Your task to perform on an android device: change the clock display to digital Image 0: 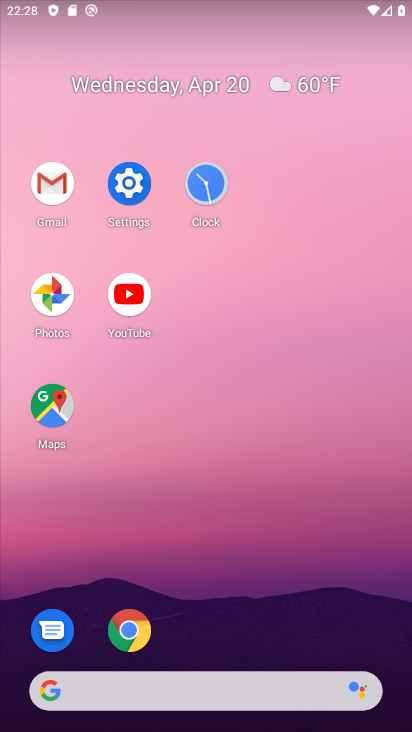
Step 0: drag from (239, 663) to (237, 131)
Your task to perform on an android device: change the clock display to digital Image 1: 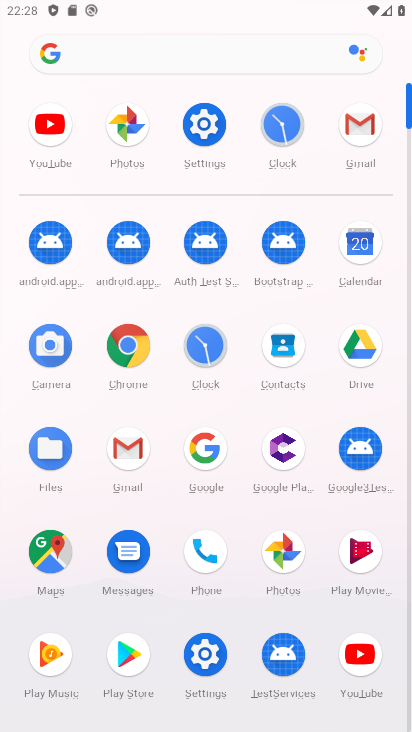
Step 1: click (279, 346)
Your task to perform on an android device: change the clock display to digital Image 2: 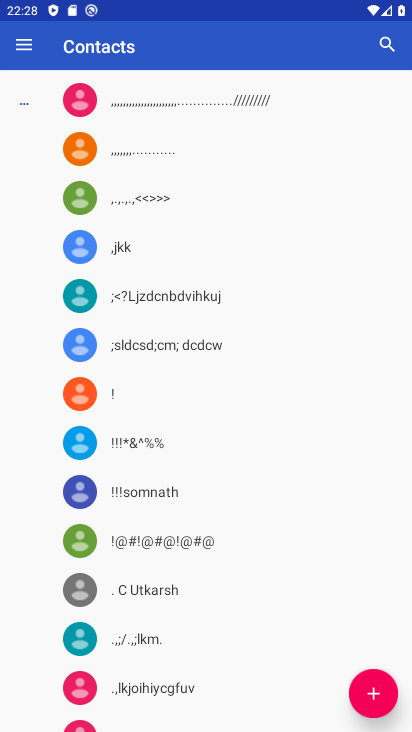
Step 2: click (386, 679)
Your task to perform on an android device: change the clock display to digital Image 3: 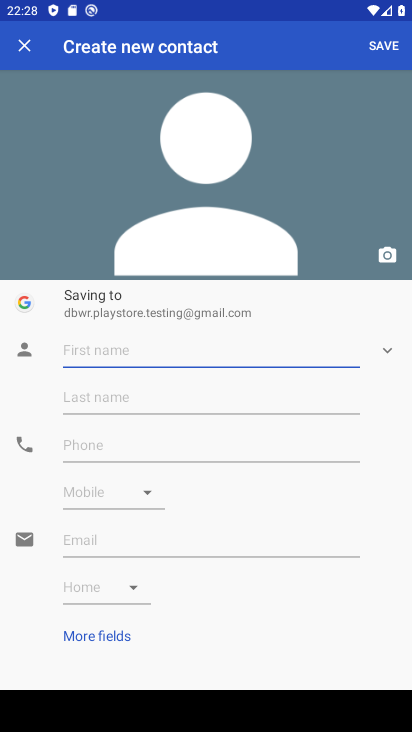
Step 3: type "jk"
Your task to perform on an android device: change the clock display to digital Image 4: 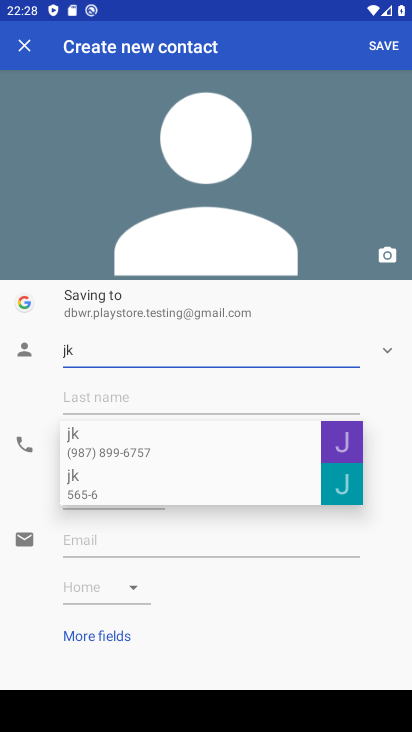
Step 4: click (238, 398)
Your task to perform on an android device: change the clock display to digital Image 5: 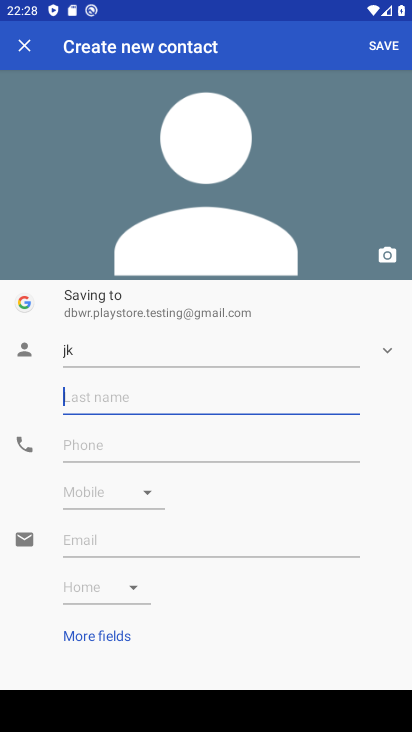
Step 5: type "kl"
Your task to perform on an android device: change the clock display to digital Image 6: 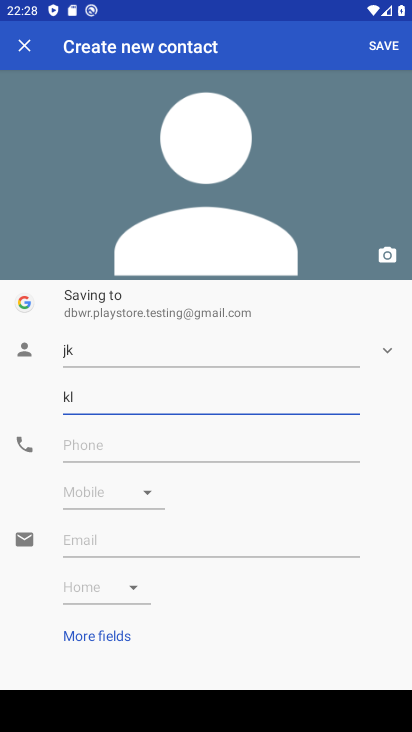
Step 6: click (230, 452)
Your task to perform on an android device: change the clock display to digital Image 7: 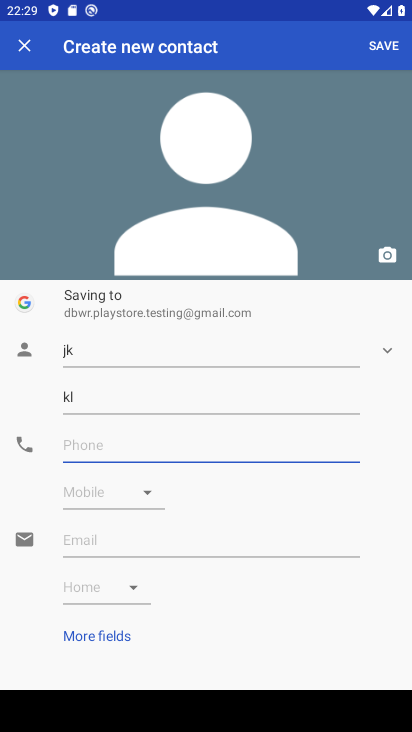
Step 7: type "9907654567"
Your task to perform on an android device: change the clock display to digital Image 8: 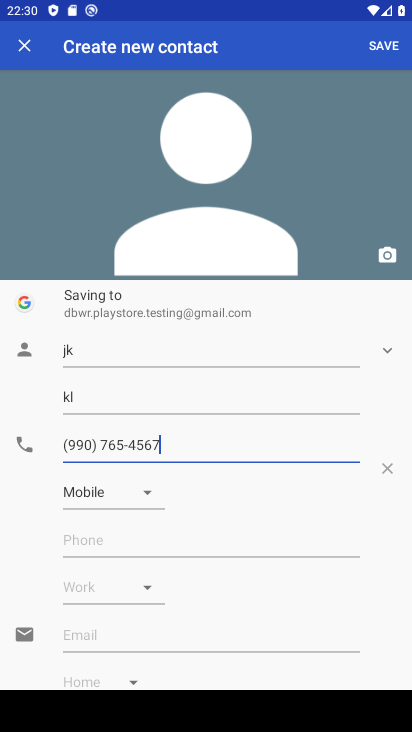
Step 8: task complete